Your task to perform on an android device: Open calendar and show me the first week of next month Image 0: 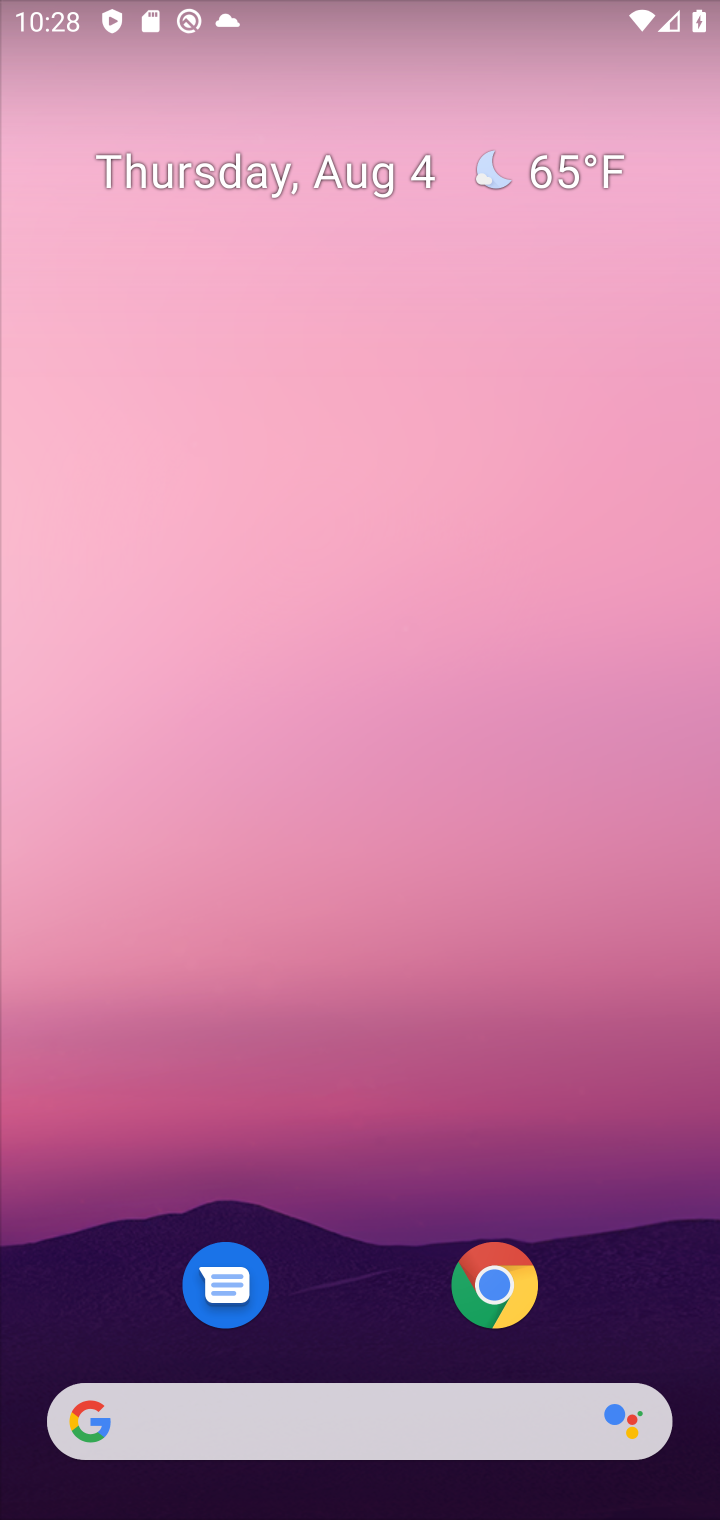
Step 0: drag from (348, 1028) to (371, 234)
Your task to perform on an android device: Open calendar and show me the first week of next month Image 1: 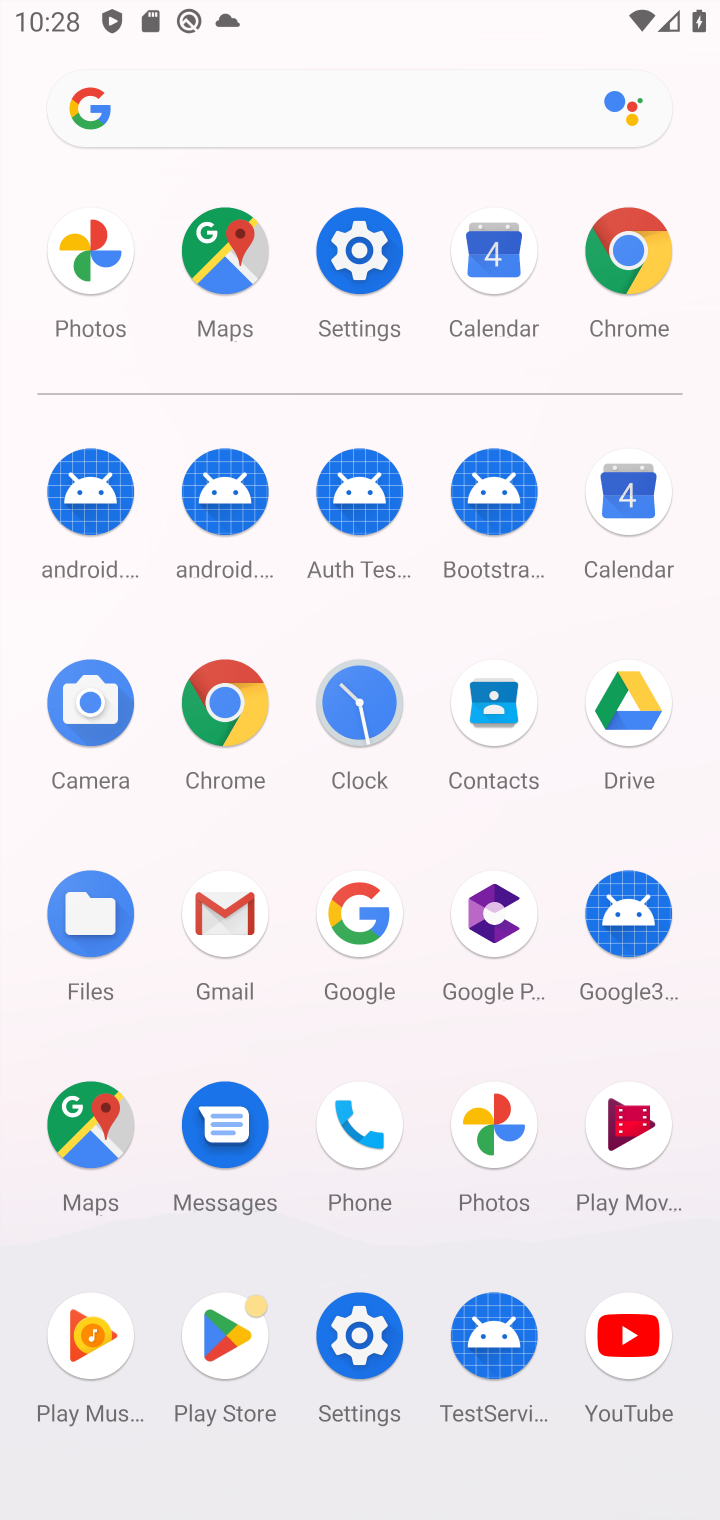
Step 1: click (487, 245)
Your task to perform on an android device: Open calendar and show me the first week of next month Image 2: 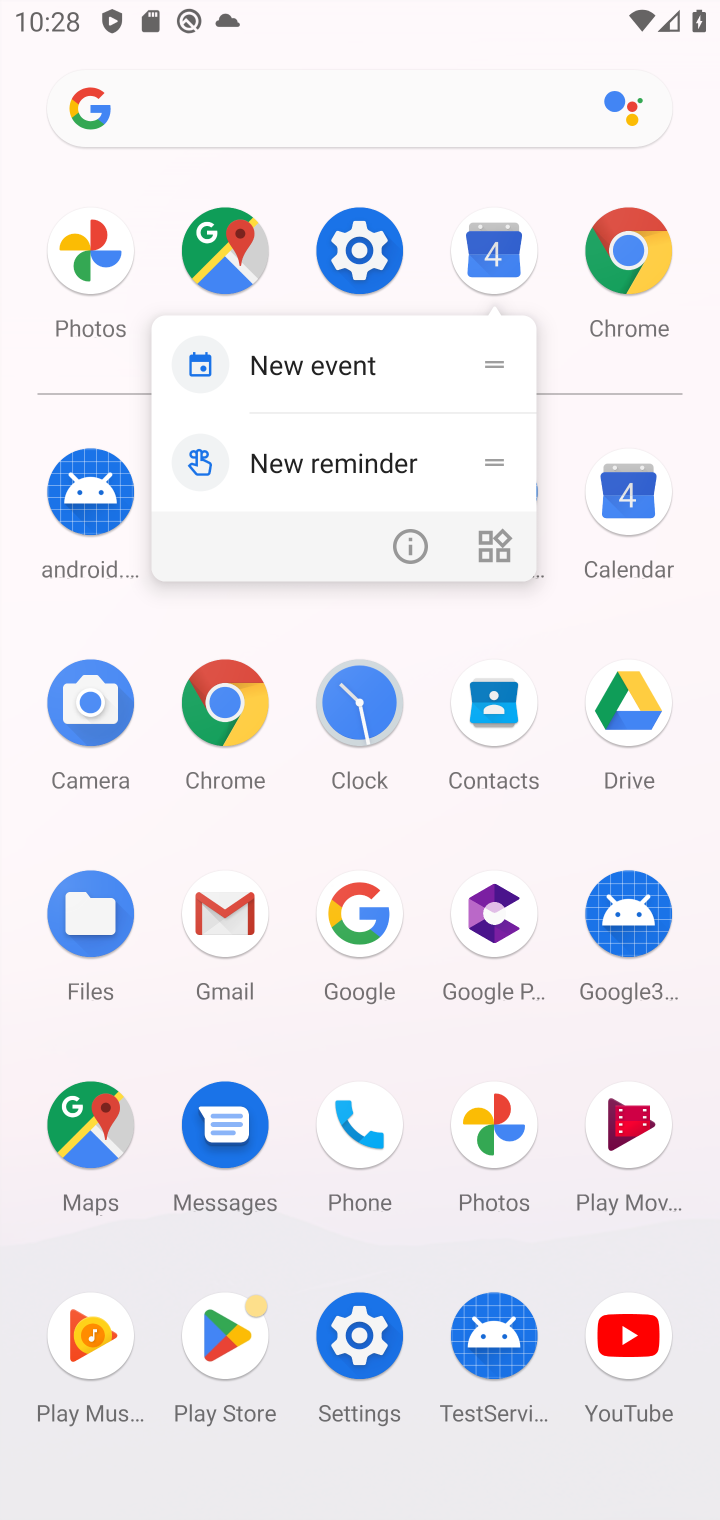
Step 2: click (503, 263)
Your task to perform on an android device: Open calendar and show me the first week of next month Image 3: 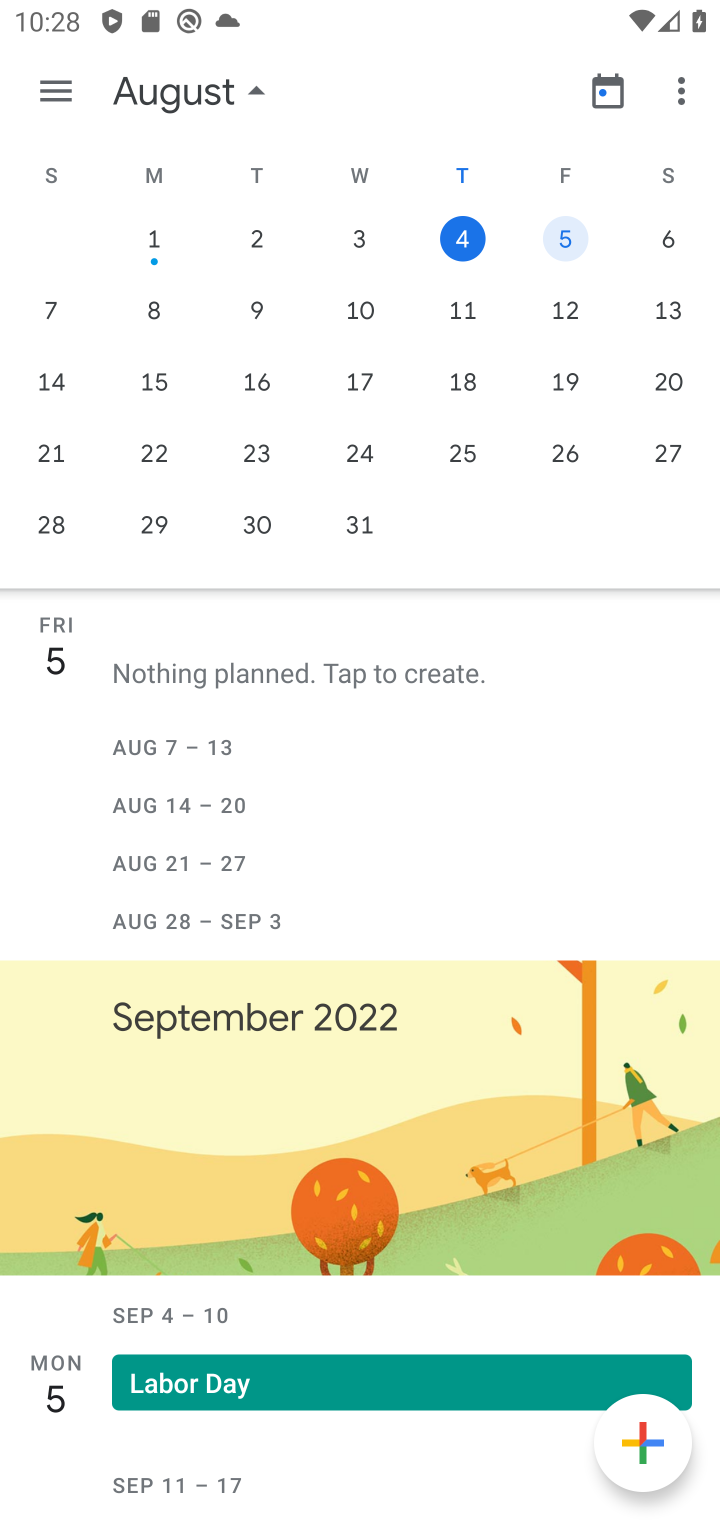
Step 3: drag from (545, 339) to (0, 393)
Your task to perform on an android device: Open calendar and show me the first week of next month Image 4: 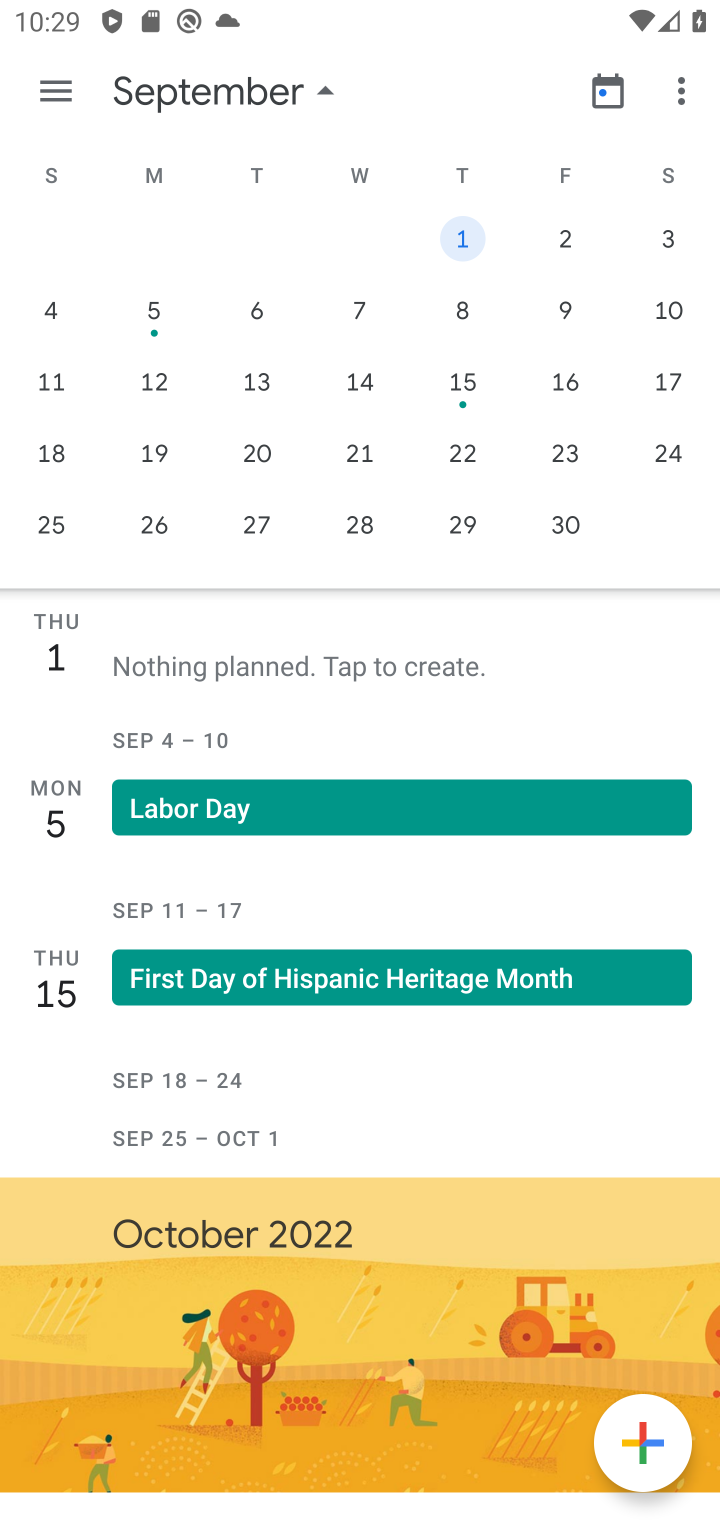
Step 4: click (150, 307)
Your task to perform on an android device: Open calendar and show me the first week of next month Image 5: 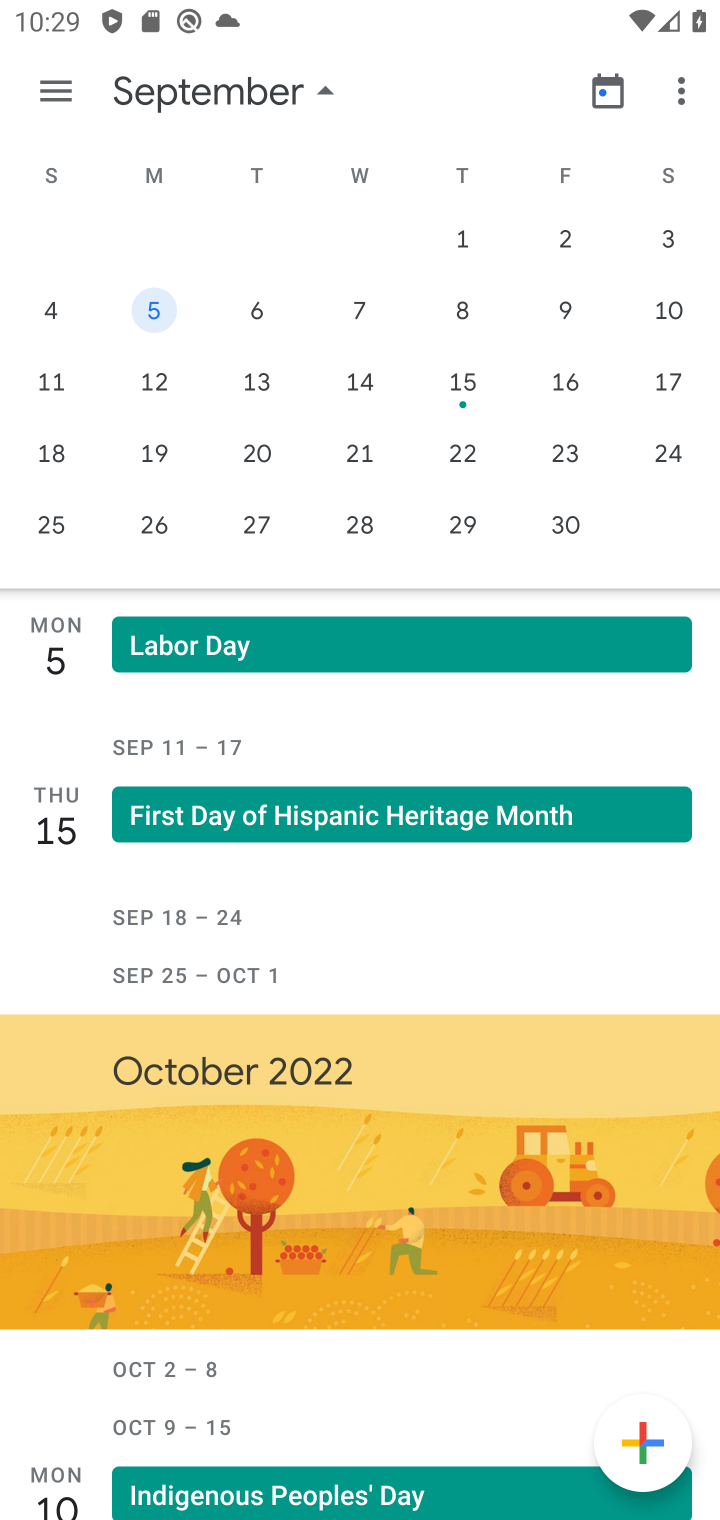
Step 5: task complete